Your task to perform on an android device: set an alarm Image 0: 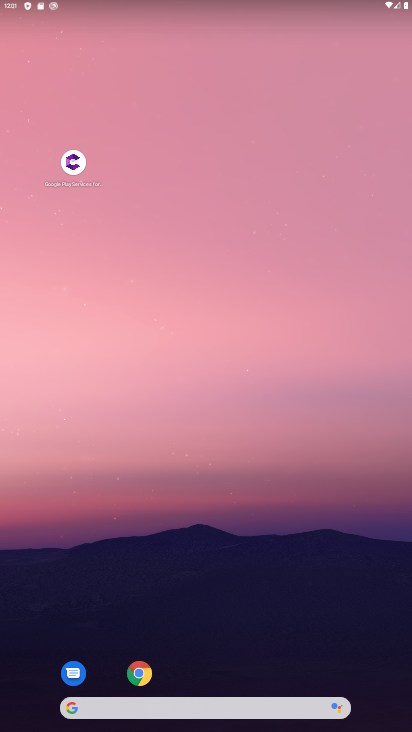
Step 0: drag from (247, 637) to (206, 127)
Your task to perform on an android device: set an alarm Image 1: 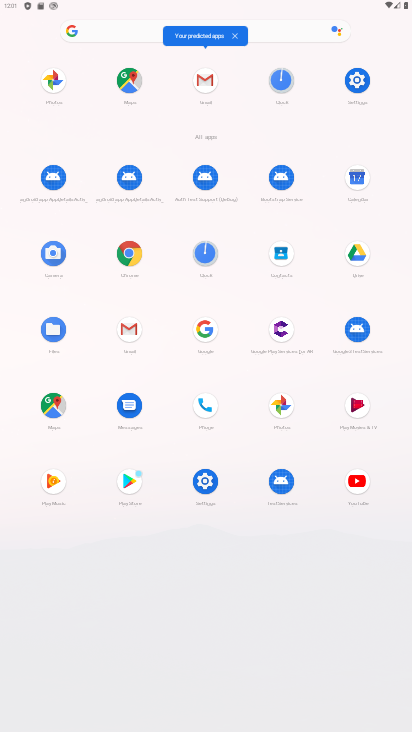
Step 1: click (282, 86)
Your task to perform on an android device: set an alarm Image 2: 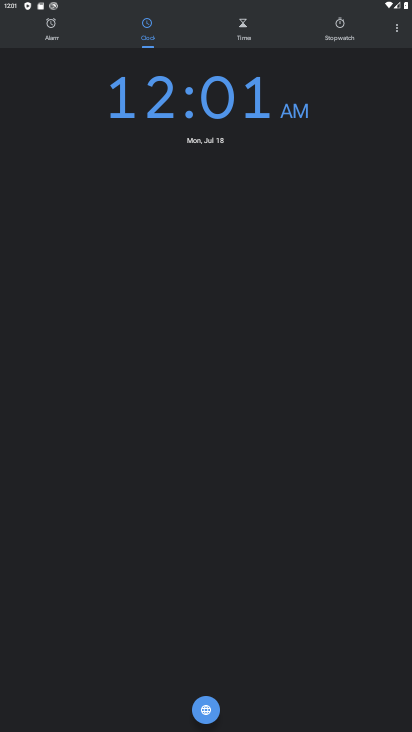
Step 2: click (38, 39)
Your task to perform on an android device: set an alarm Image 3: 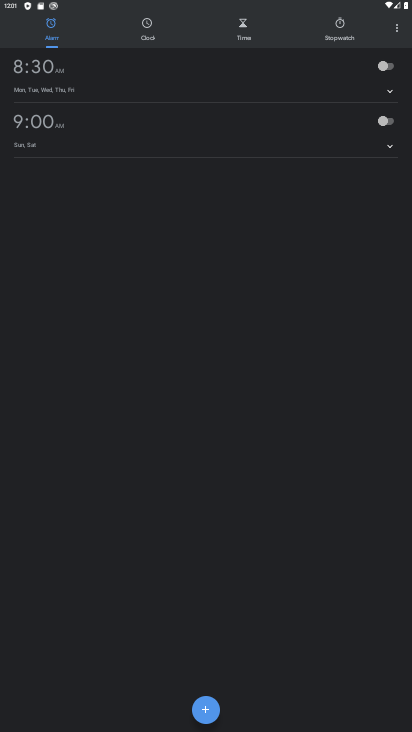
Step 3: click (395, 74)
Your task to perform on an android device: set an alarm Image 4: 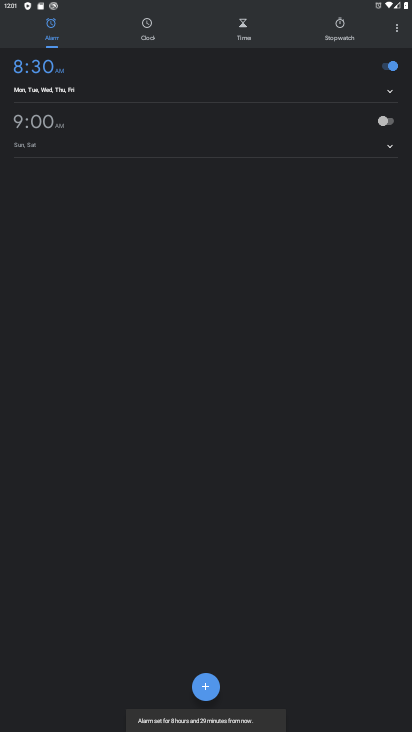
Step 4: task complete